Your task to perform on an android device: change keyboard looks Image 0: 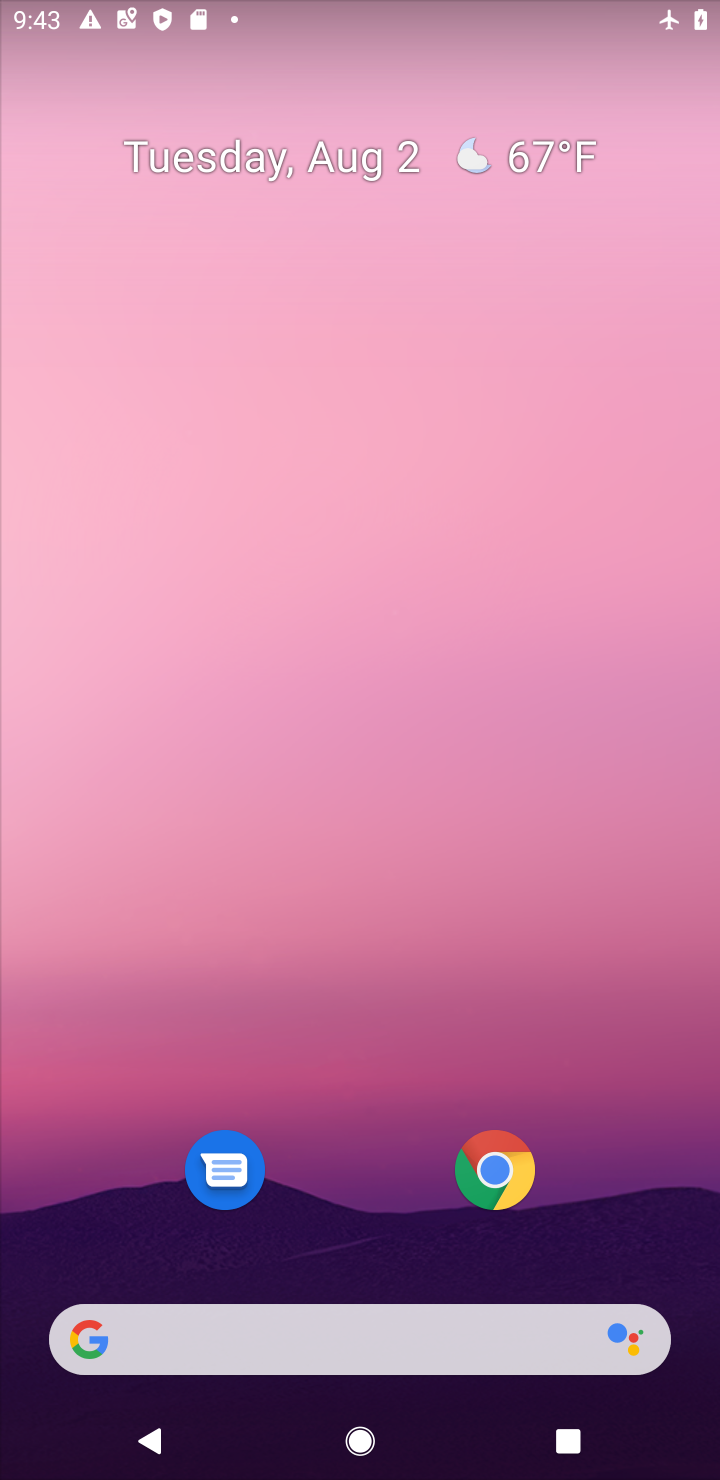
Step 0: drag from (362, 752) to (336, 357)
Your task to perform on an android device: change keyboard looks Image 1: 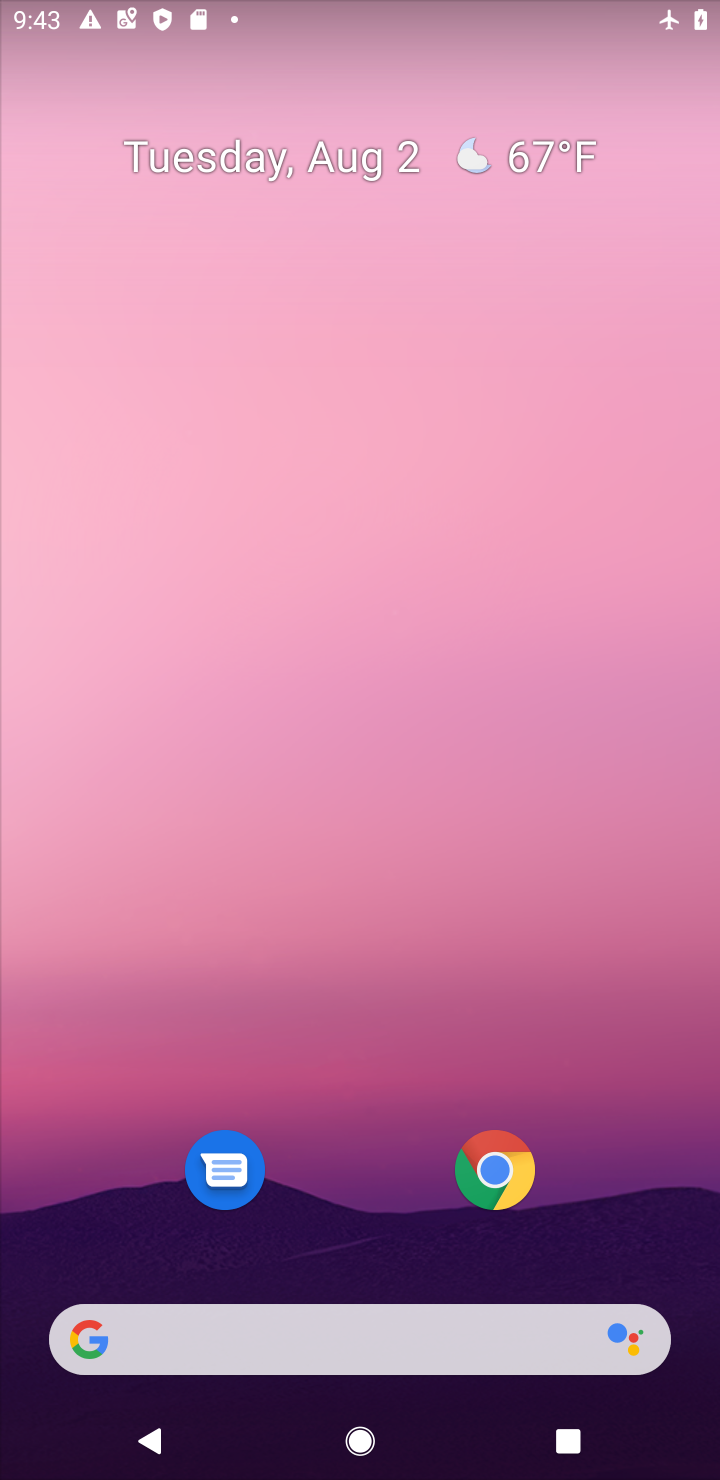
Step 1: drag from (293, 942) to (434, 94)
Your task to perform on an android device: change keyboard looks Image 2: 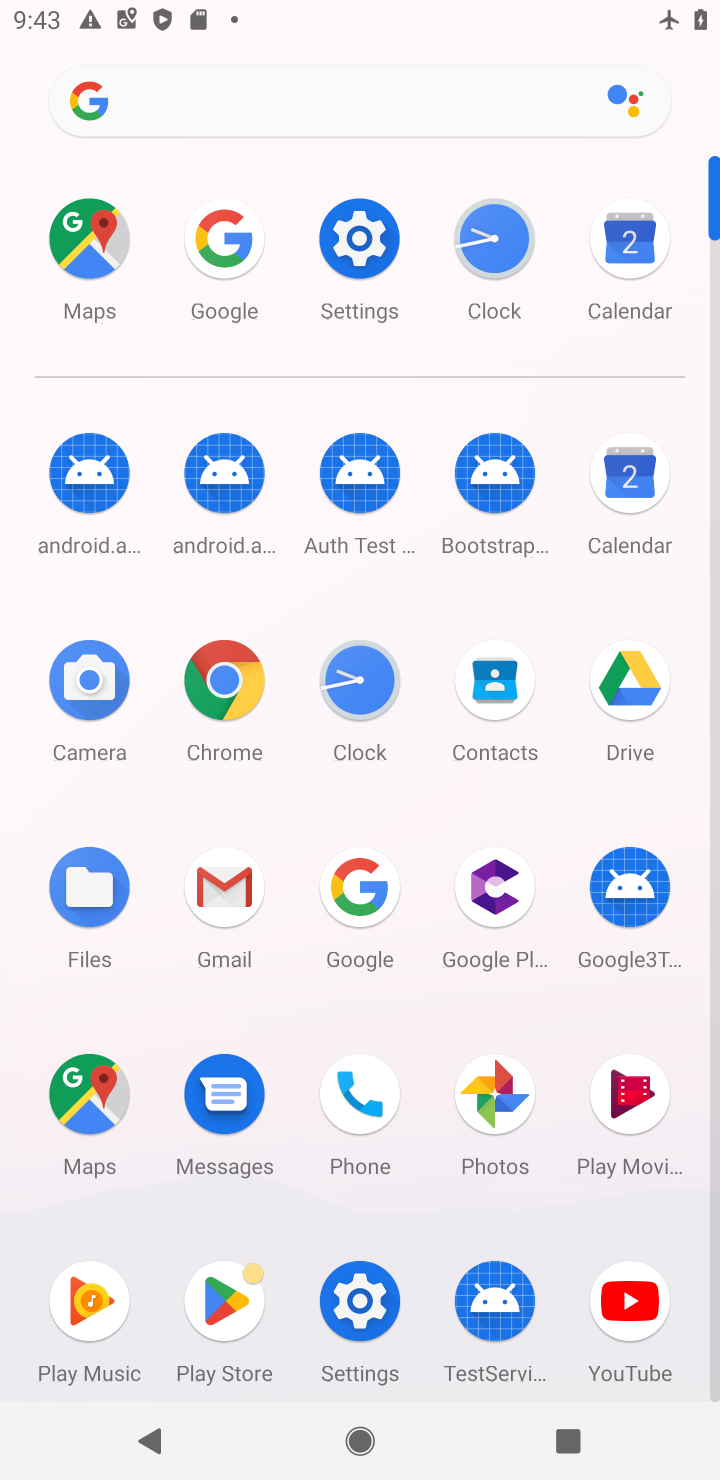
Step 2: click (359, 234)
Your task to perform on an android device: change keyboard looks Image 3: 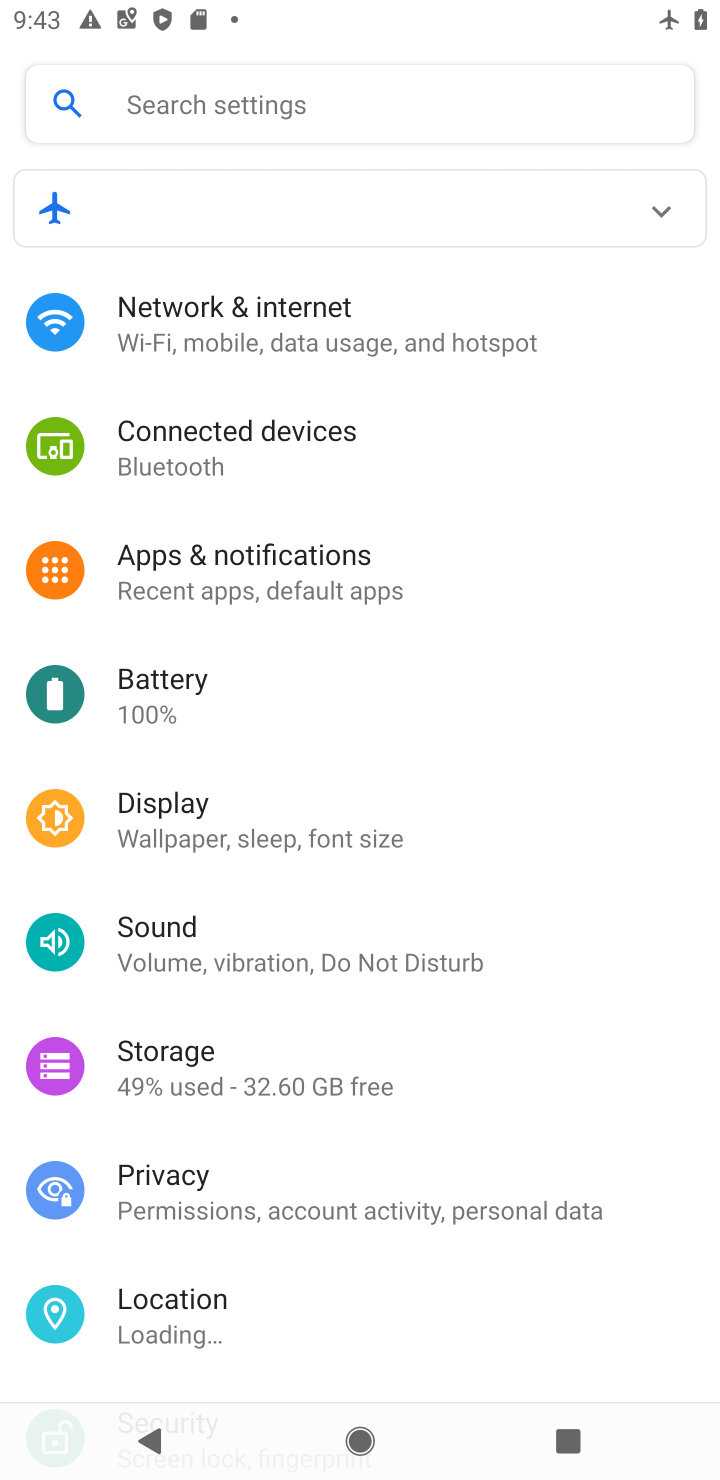
Step 3: drag from (214, 1265) to (270, 679)
Your task to perform on an android device: change keyboard looks Image 4: 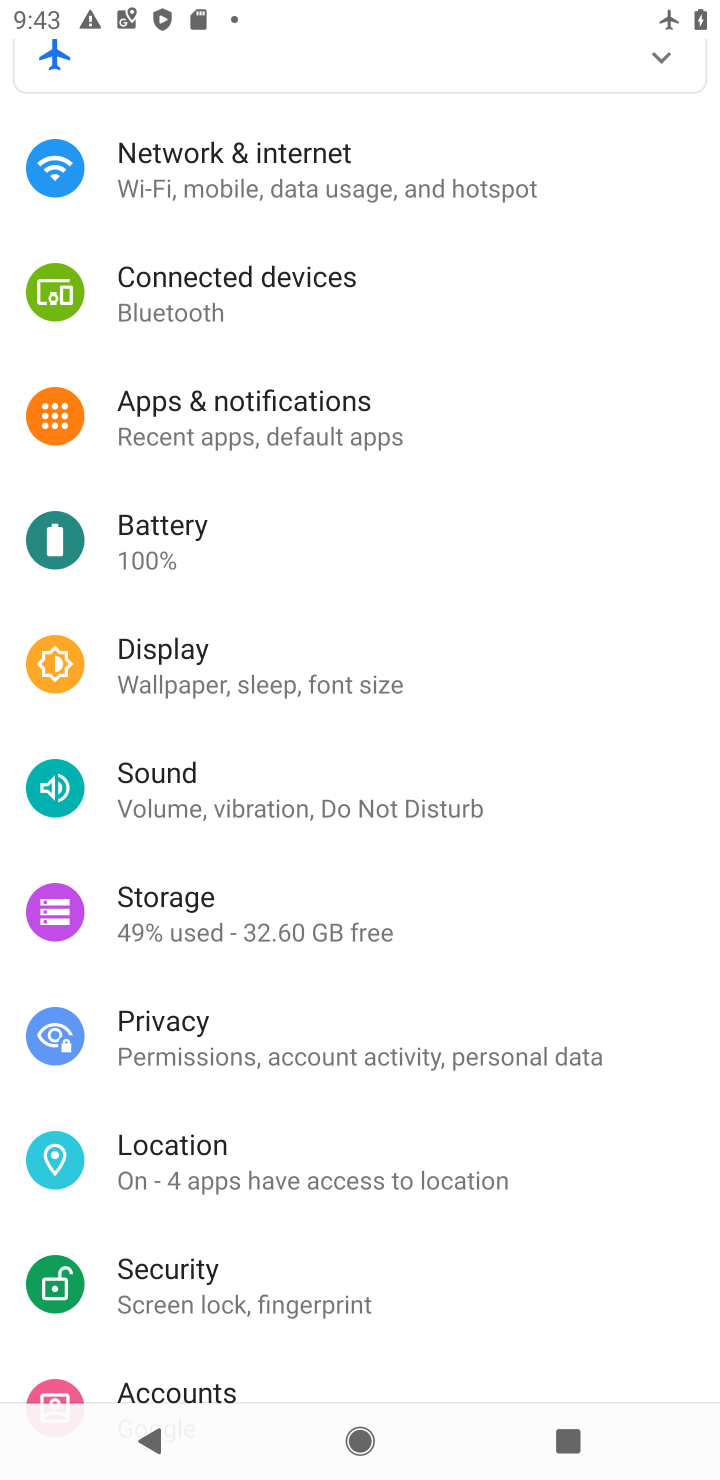
Step 4: drag from (269, 1244) to (274, 737)
Your task to perform on an android device: change keyboard looks Image 5: 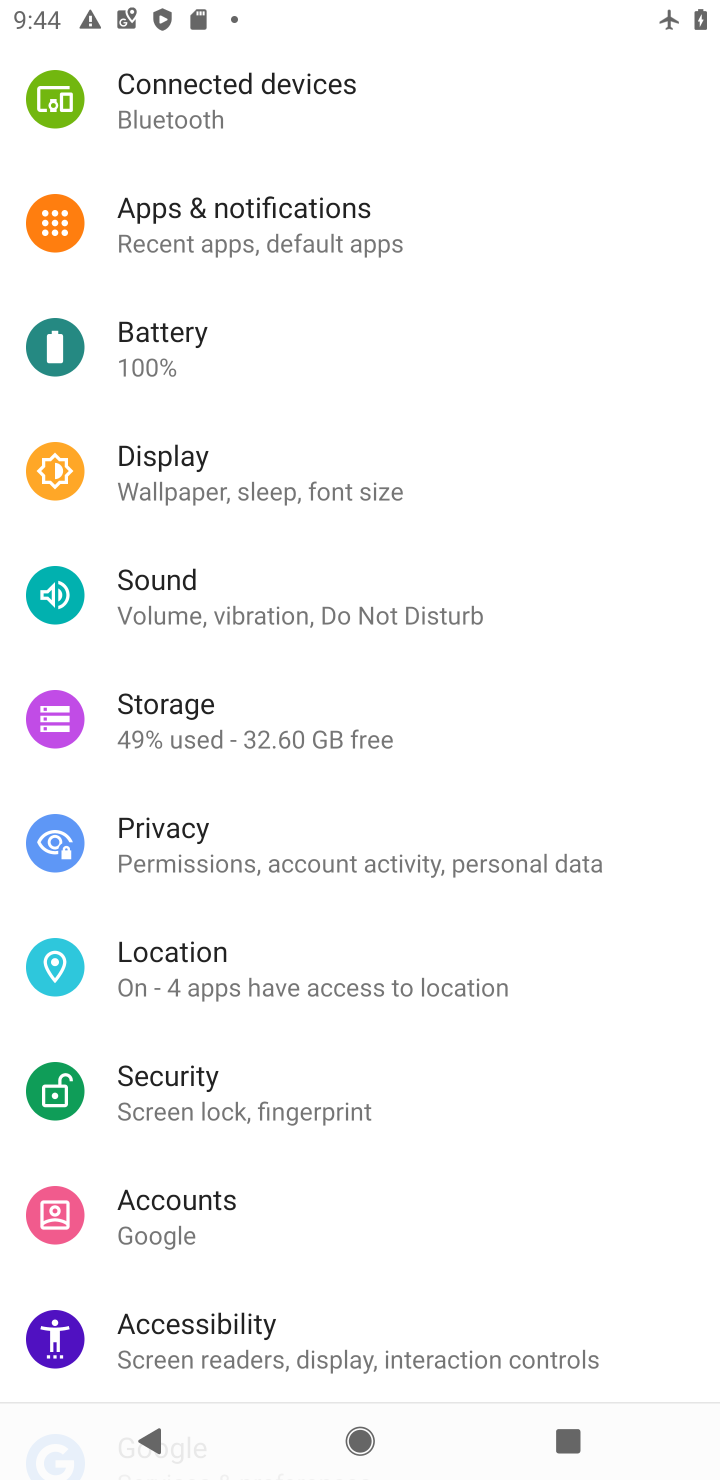
Step 5: click (222, 480)
Your task to perform on an android device: change keyboard looks Image 6: 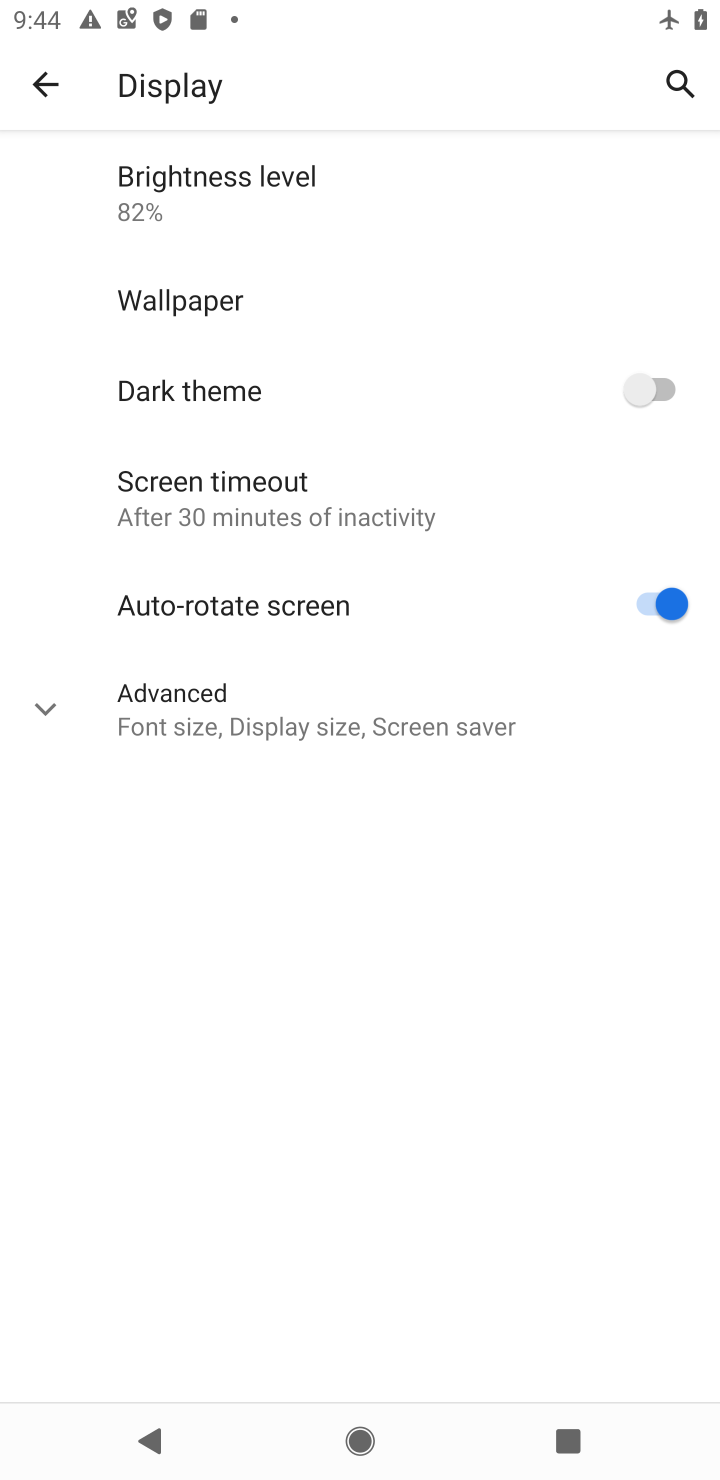
Step 6: drag from (248, 517) to (249, 380)
Your task to perform on an android device: change keyboard looks Image 7: 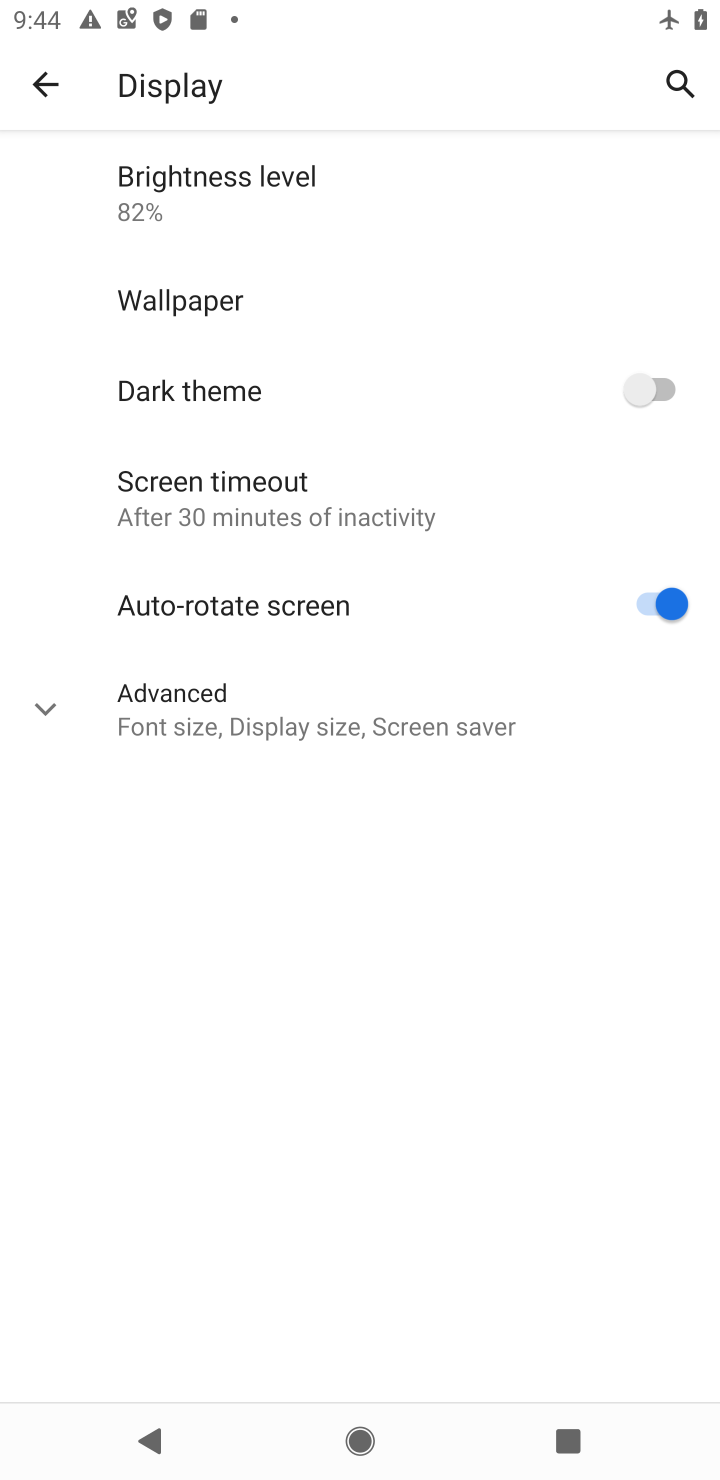
Step 7: click (53, 69)
Your task to perform on an android device: change keyboard looks Image 8: 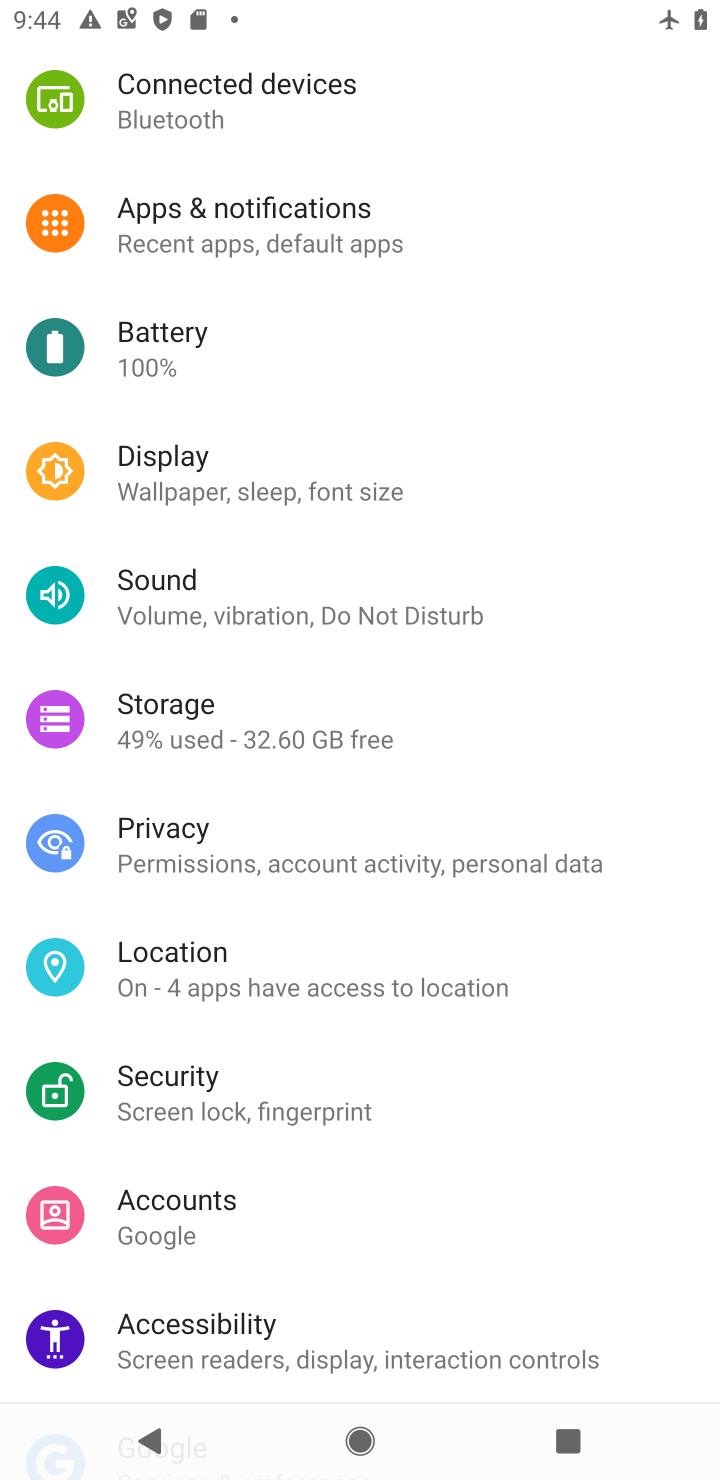
Step 8: drag from (208, 1292) to (208, 981)
Your task to perform on an android device: change keyboard looks Image 9: 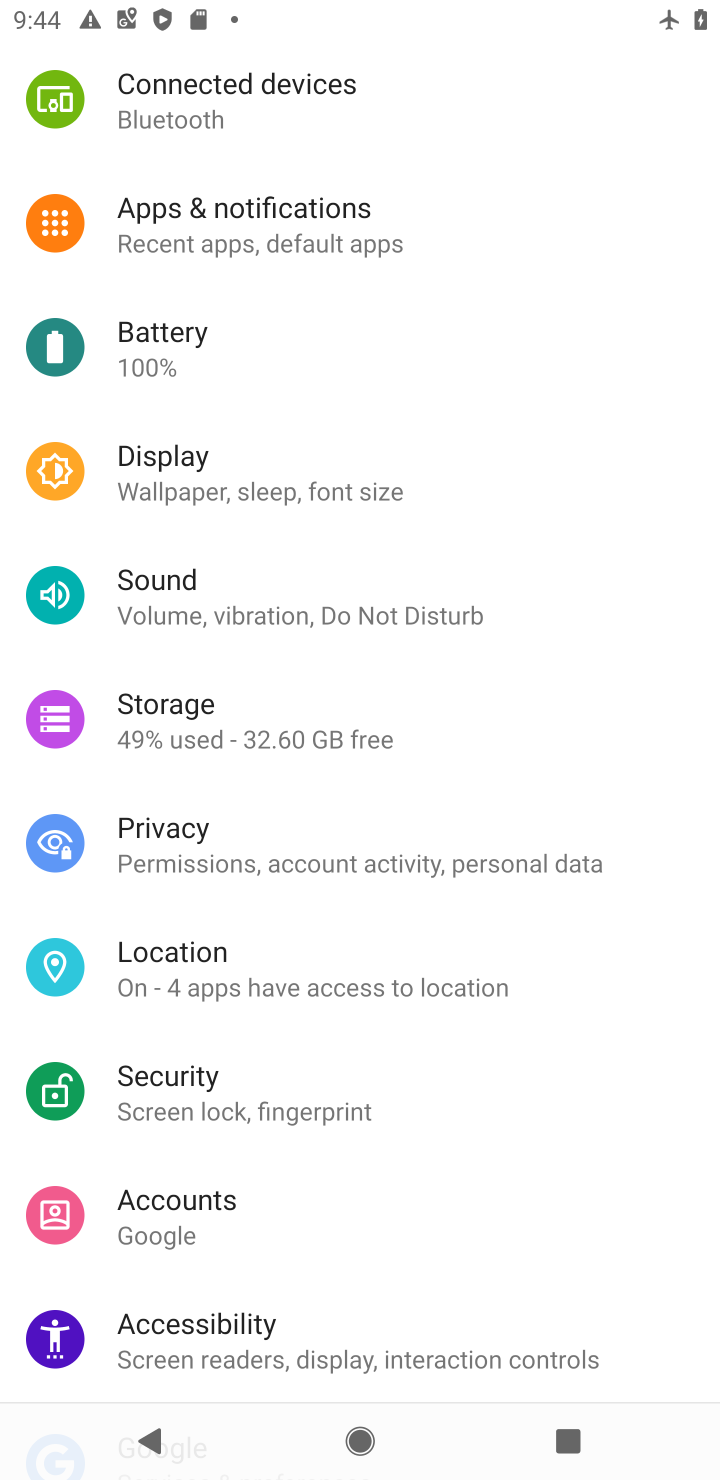
Step 9: drag from (208, 1243) to (289, 771)
Your task to perform on an android device: change keyboard looks Image 10: 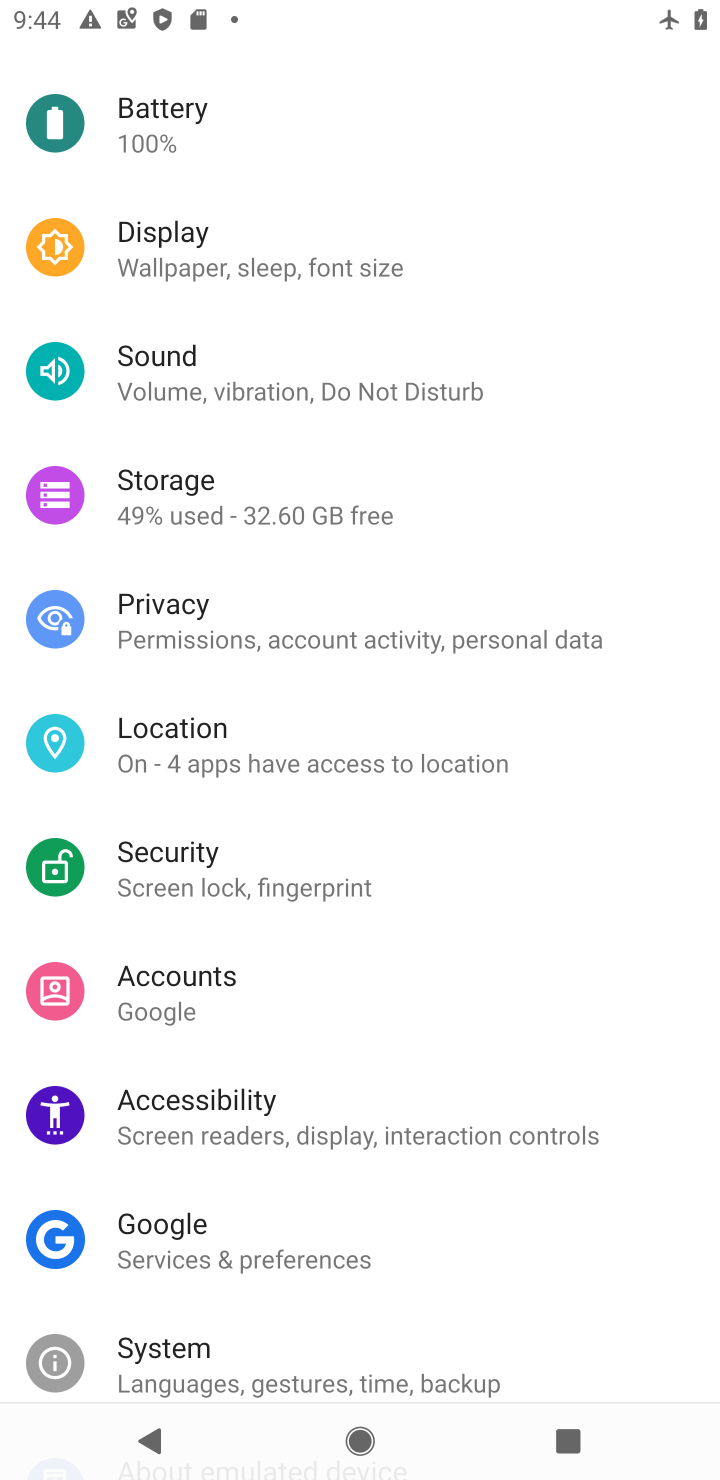
Step 10: click (221, 1027)
Your task to perform on an android device: change keyboard looks Image 11: 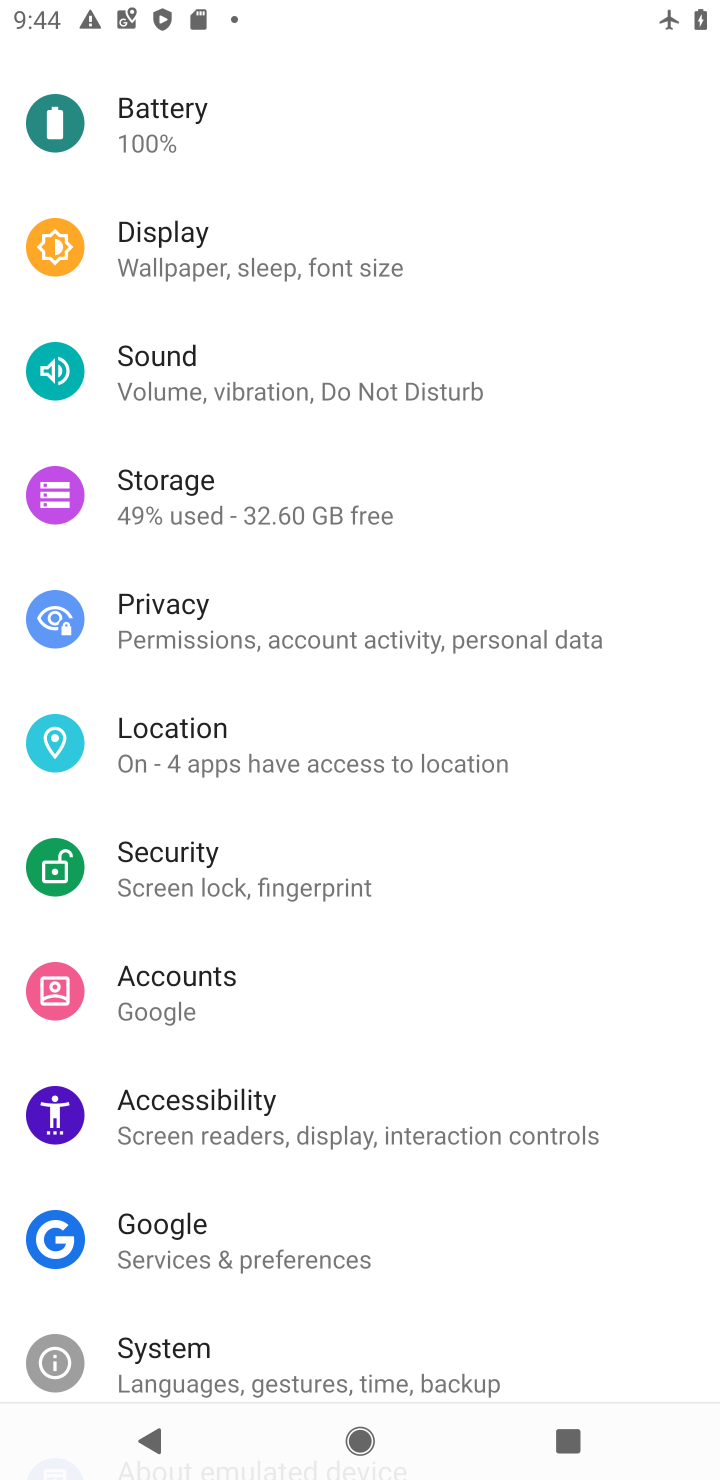
Step 11: drag from (401, 1241) to (401, 547)
Your task to perform on an android device: change keyboard looks Image 12: 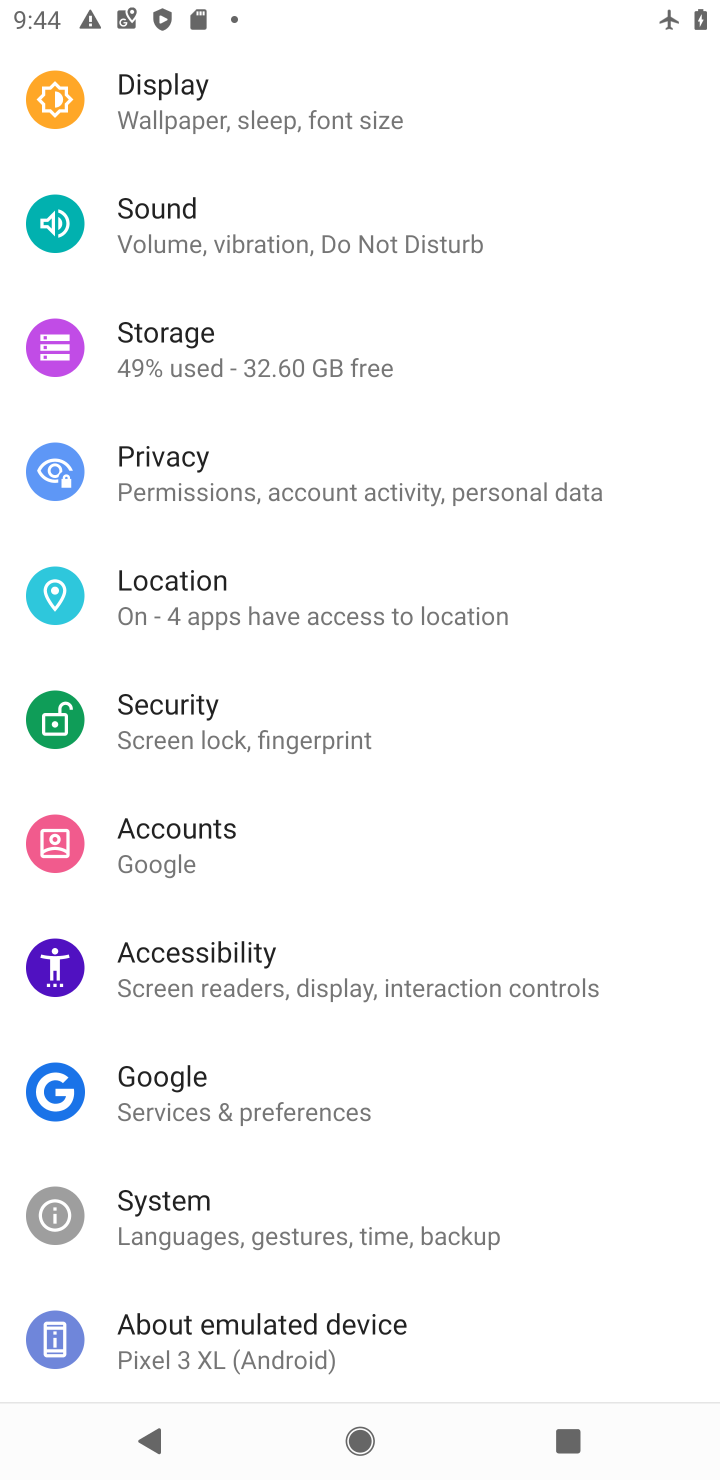
Step 12: click (171, 1244)
Your task to perform on an android device: change keyboard looks Image 13: 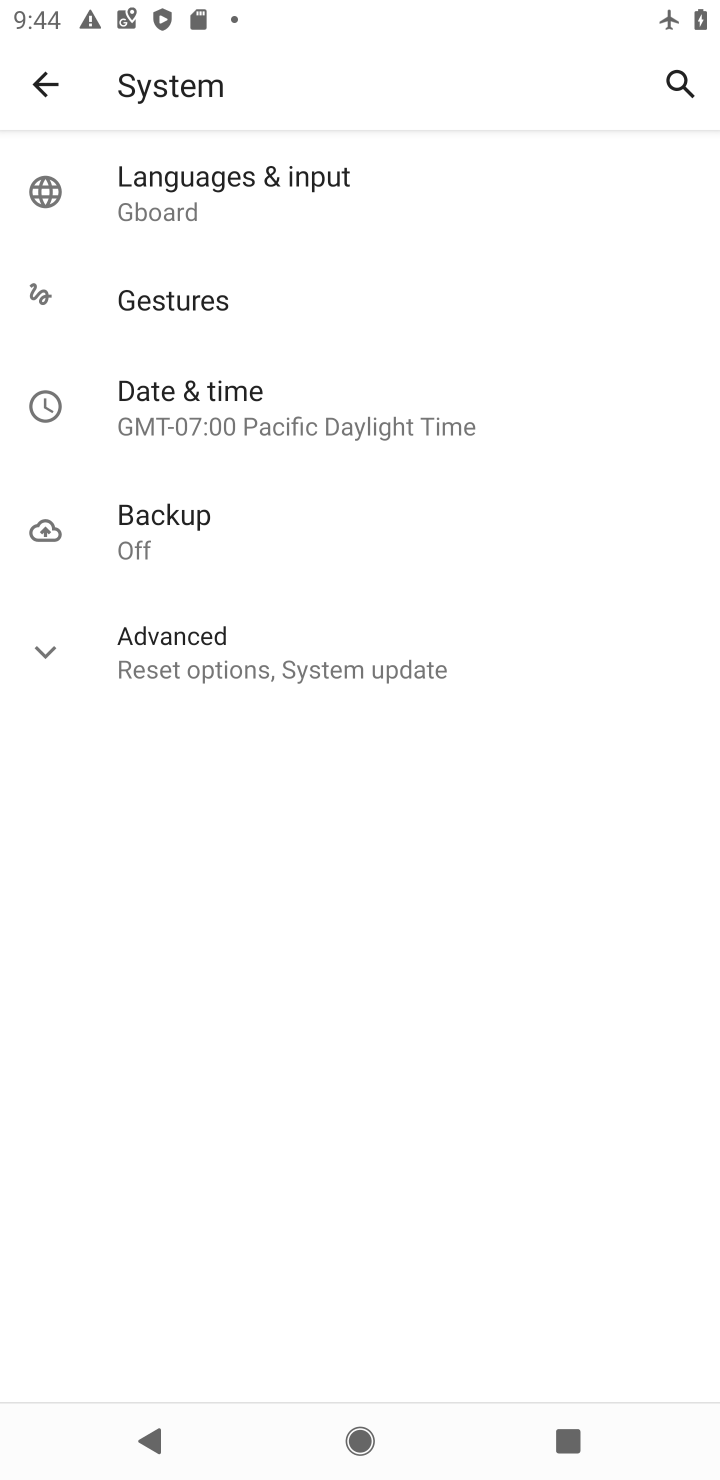
Step 13: click (171, 166)
Your task to perform on an android device: change keyboard looks Image 14: 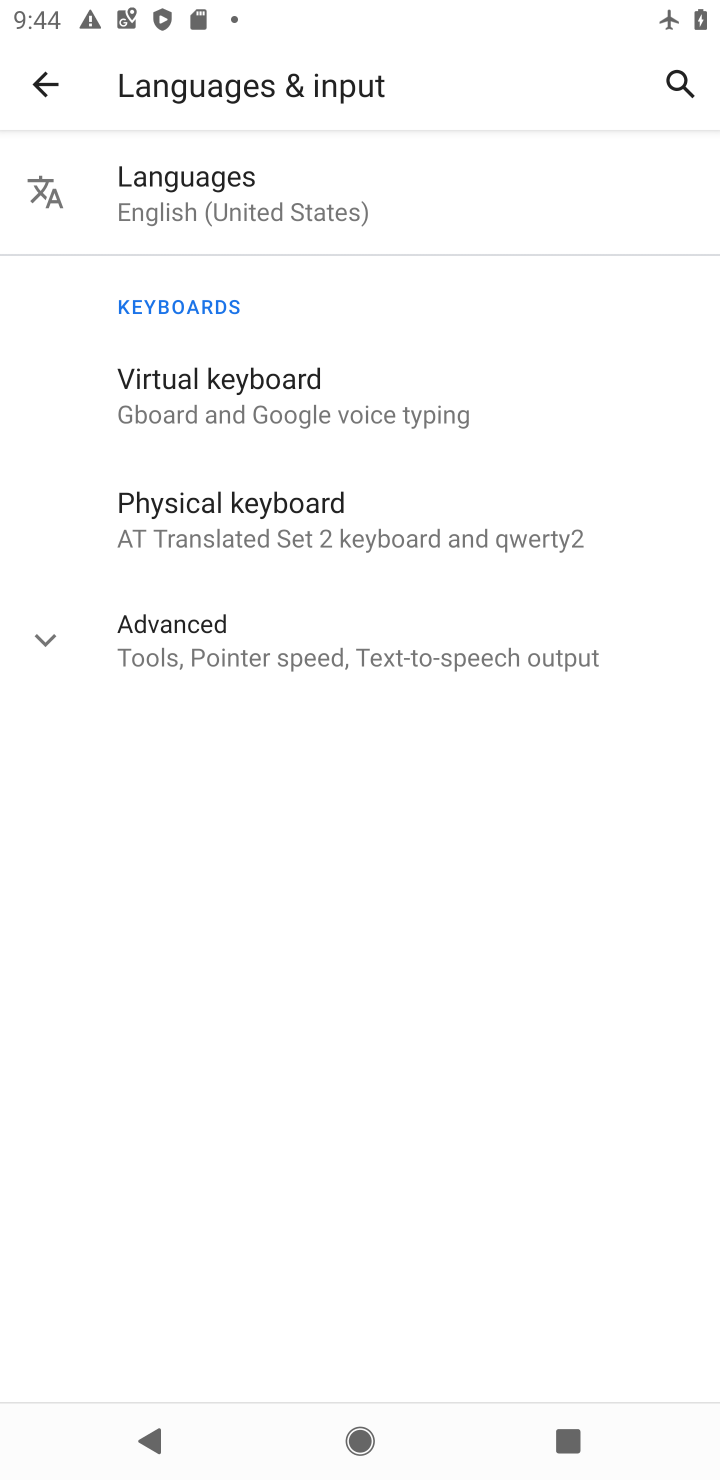
Step 14: click (230, 396)
Your task to perform on an android device: change keyboard looks Image 15: 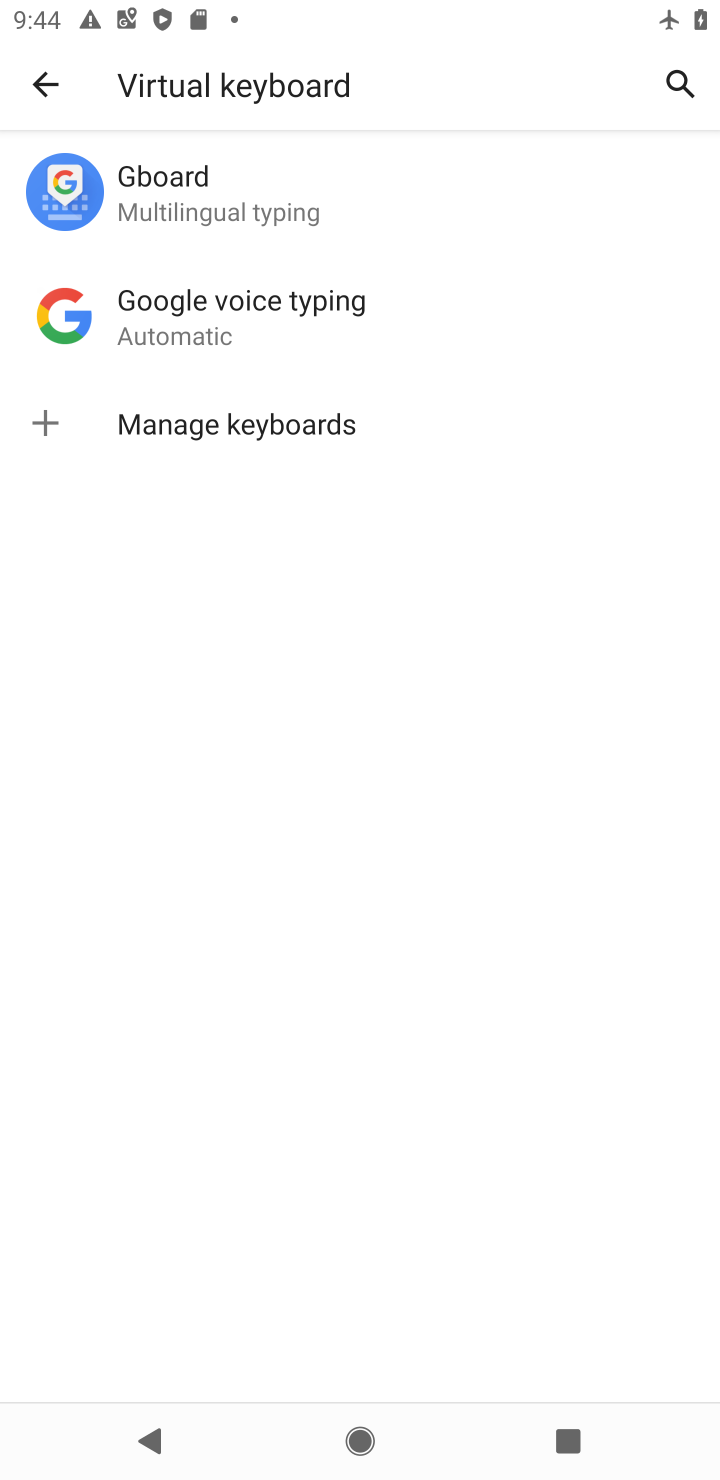
Step 15: click (168, 185)
Your task to perform on an android device: change keyboard looks Image 16: 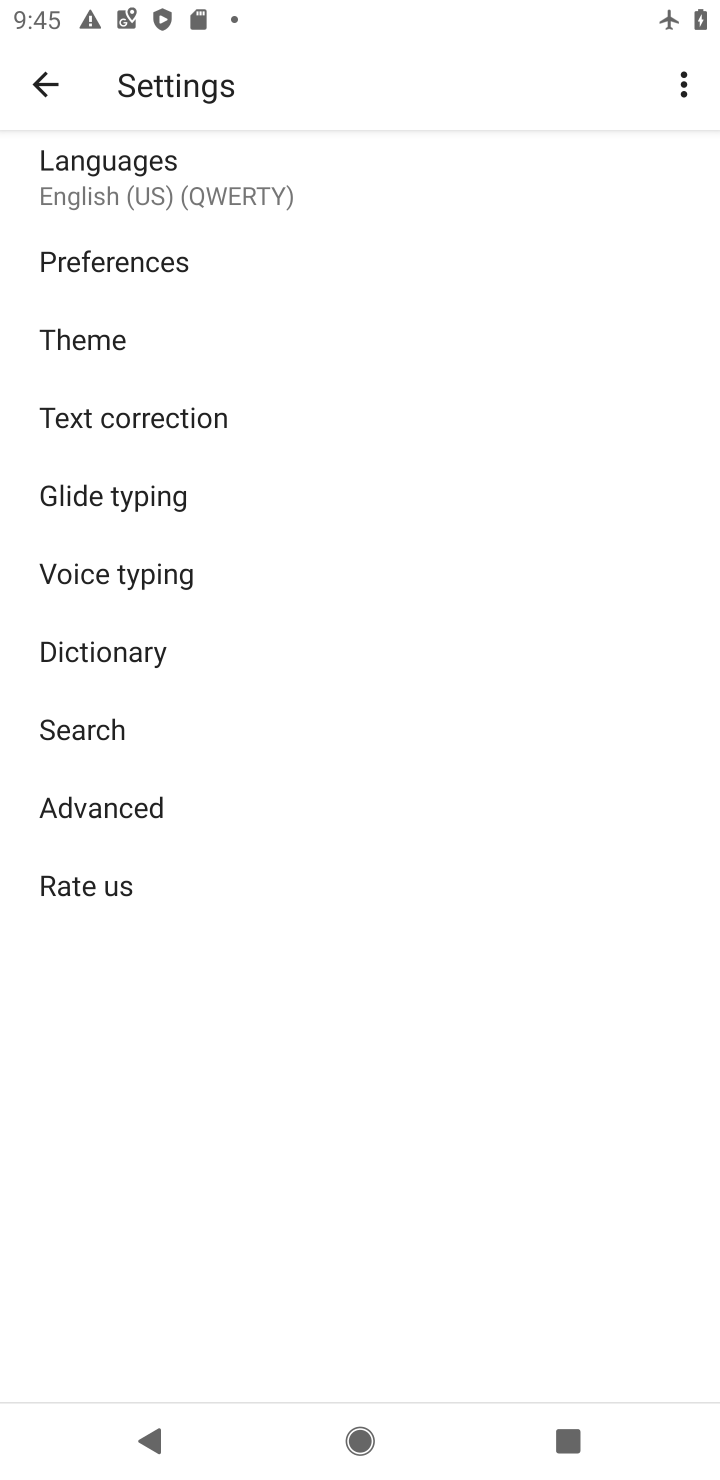
Step 16: click (116, 319)
Your task to perform on an android device: change keyboard looks Image 17: 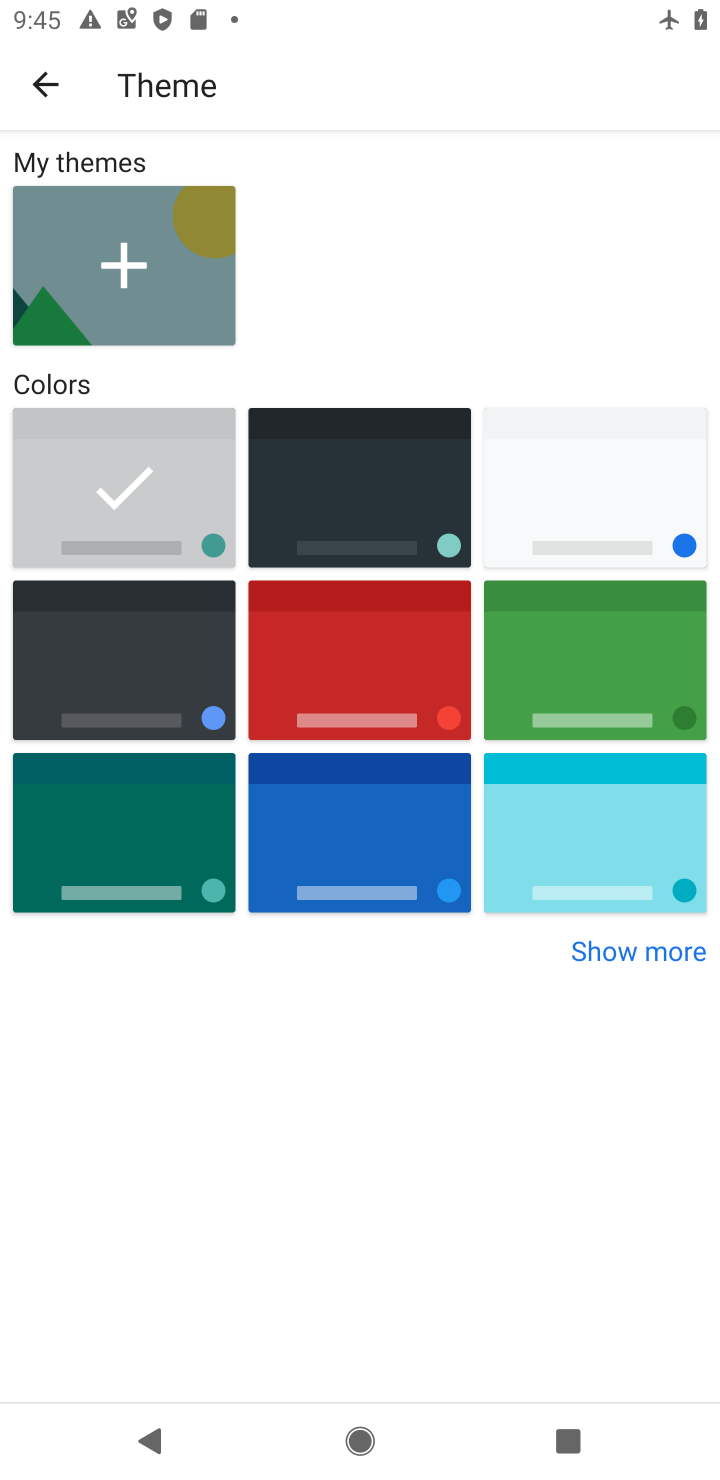
Step 17: click (314, 465)
Your task to perform on an android device: change keyboard looks Image 18: 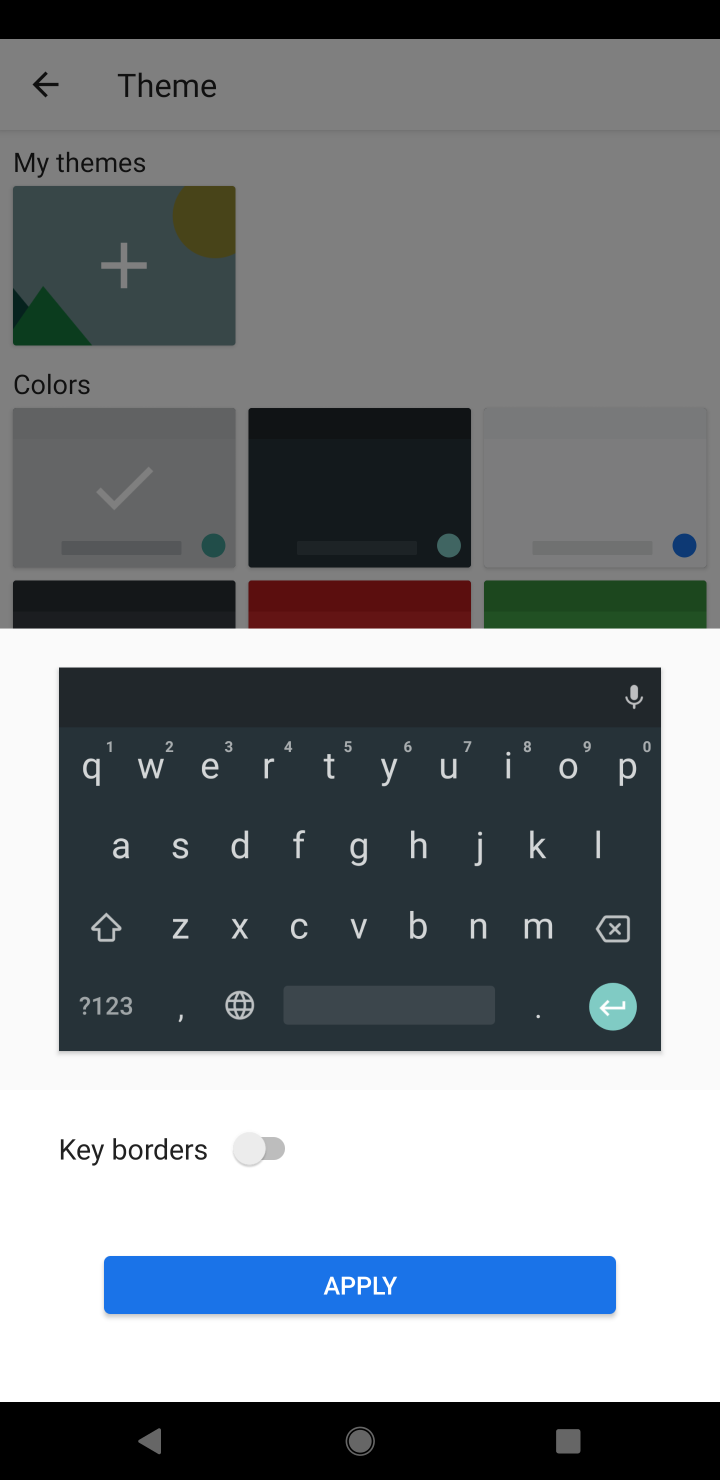
Step 18: click (414, 1284)
Your task to perform on an android device: change keyboard looks Image 19: 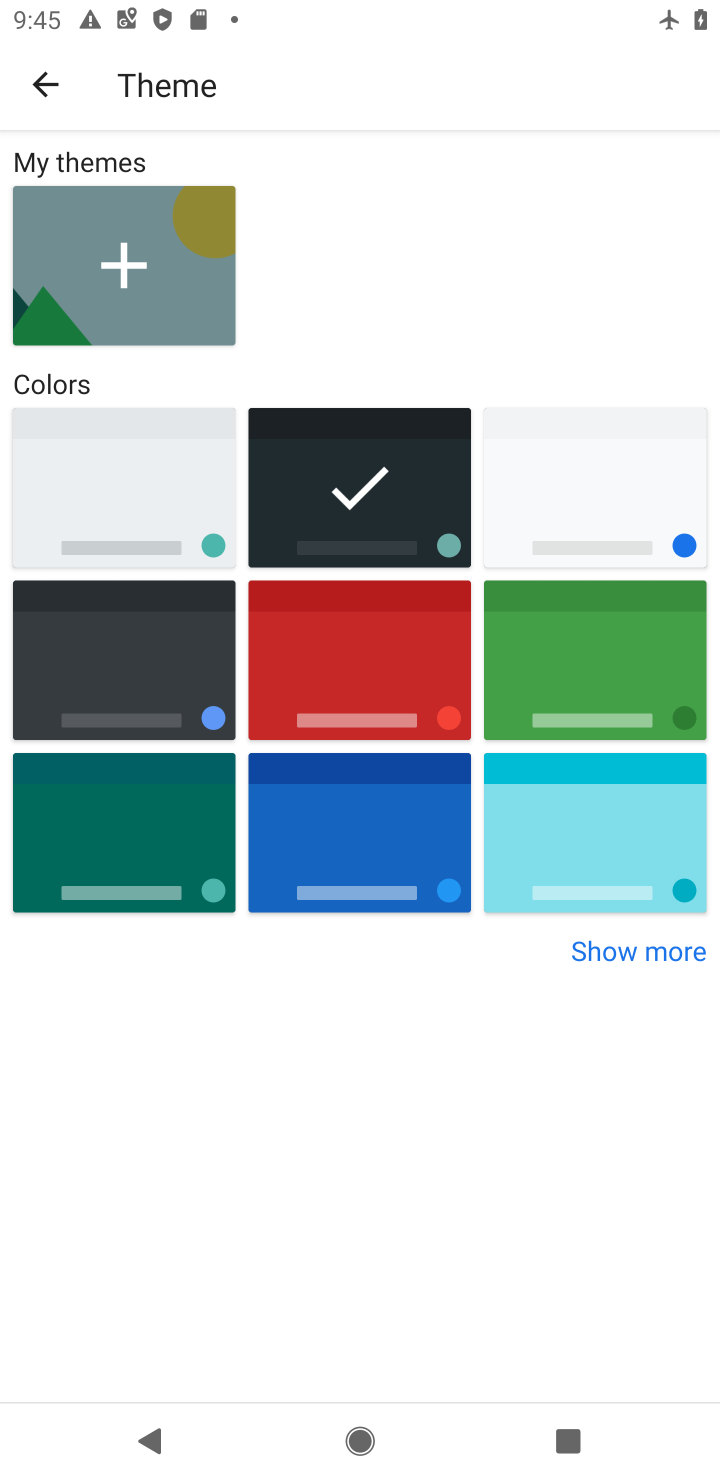
Step 19: task complete